Your task to perform on an android device: see creations saved in the google photos Image 0: 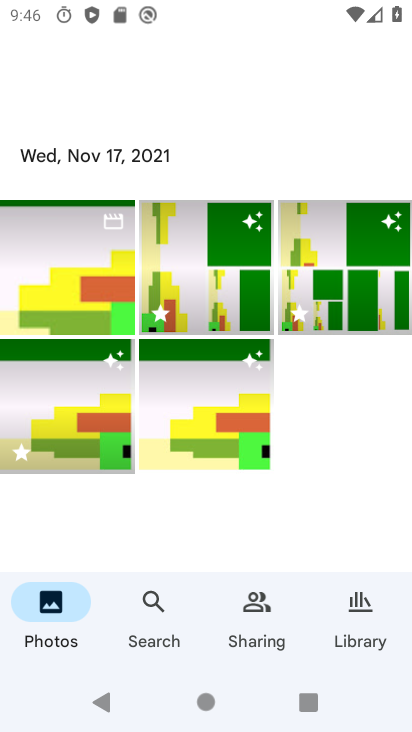
Step 0: press home button
Your task to perform on an android device: see creations saved in the google photos Image 1: 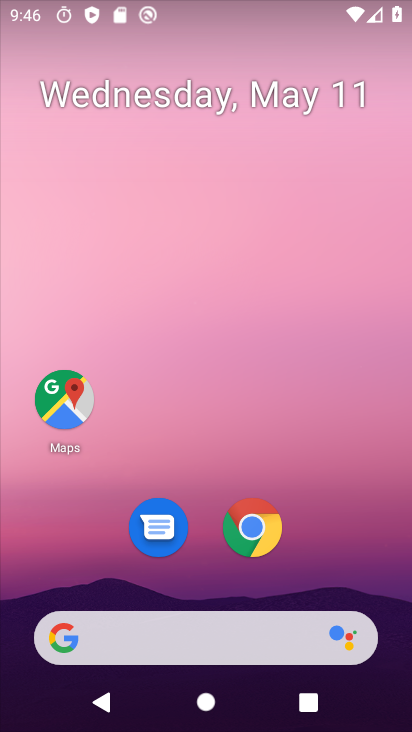
Step 1: drag from (243, 618) to (303, 147)
Your task to perform on an android device: see creations saved in the google photos Image 2: 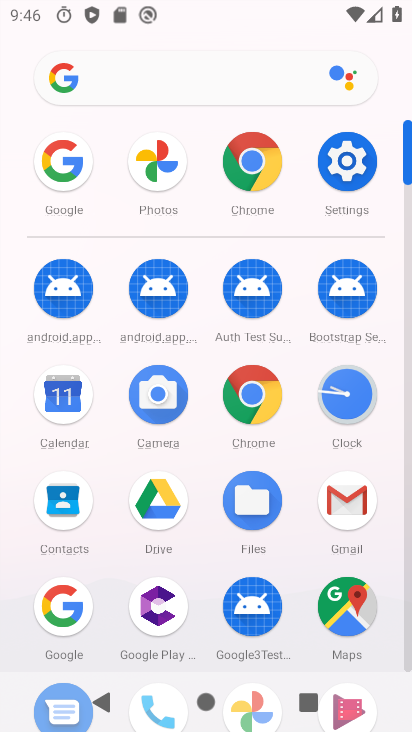
Step 2: drag from (247, 541) to (270, 264)
Your task to perform on an android device: see creations saved in the google photos Image 3: 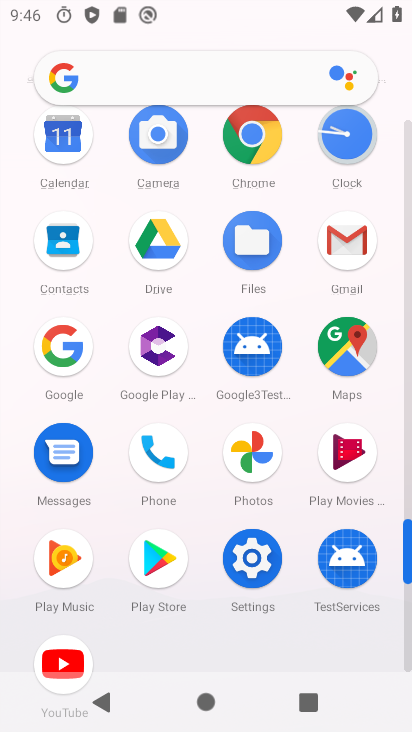
Step 3: click (253, 448)
Your task to perform on an android device: see creations saved in the google photos Image 4: 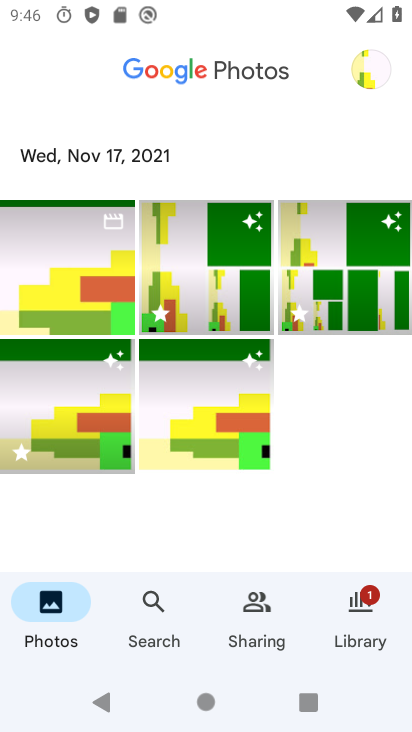
Step 4: click (349, 623)
Your task to perform on an android device: see creations saved in the google photos Image 5: 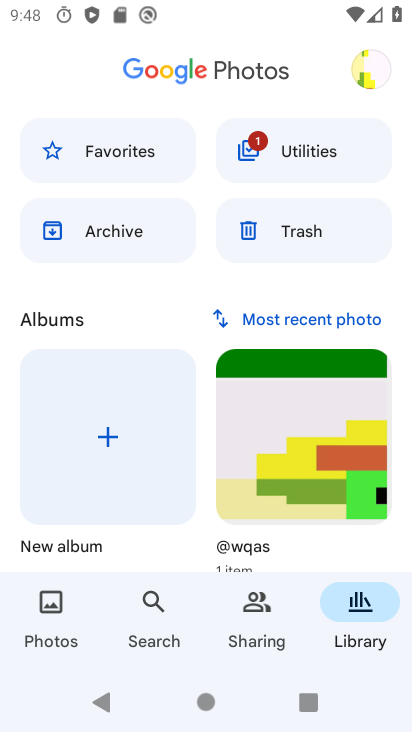
Step 5: task complete